Your task to perform on an android device: Turn off the flashlight Image 0: 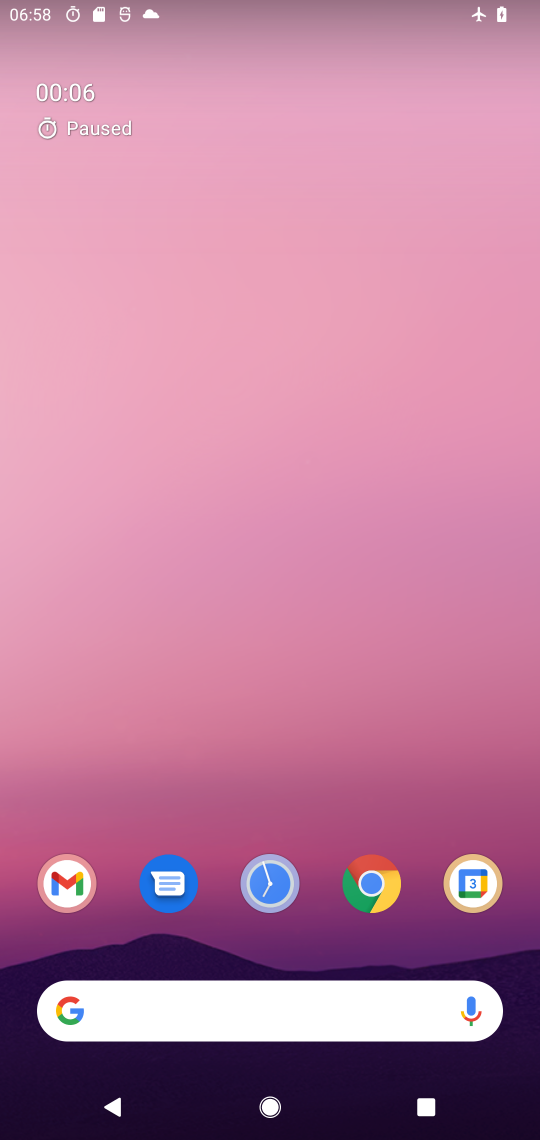
Step 0: drag from (352, 41) to (264, 848)
Your task to perform on an android device: Turn off the flashlight Image 1: 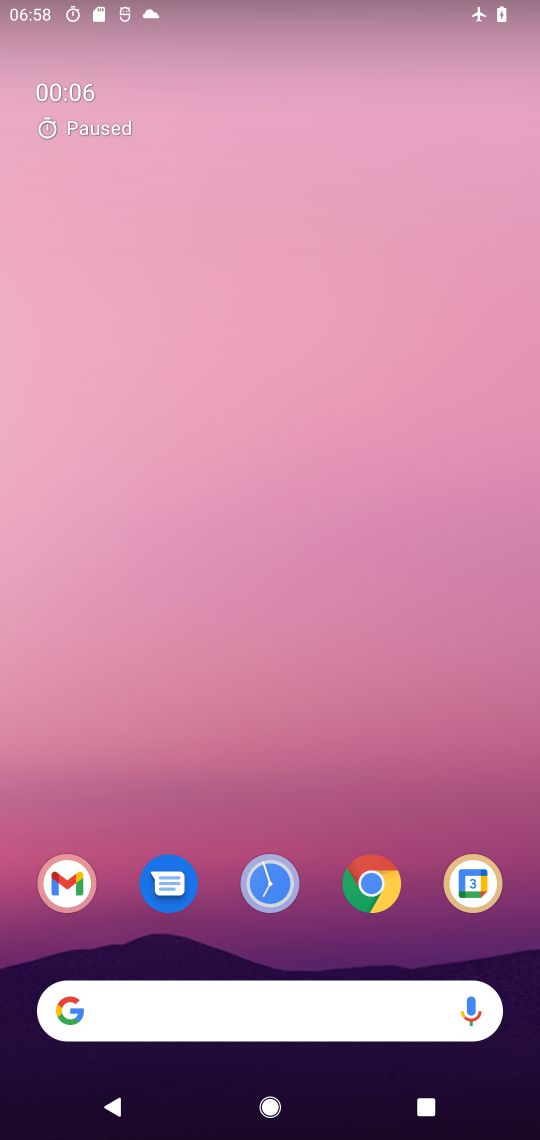
Step 1: drag from (325, 96) to (386, 868)
Your task to perform on an android device: Turn off the flashlight Image 2: 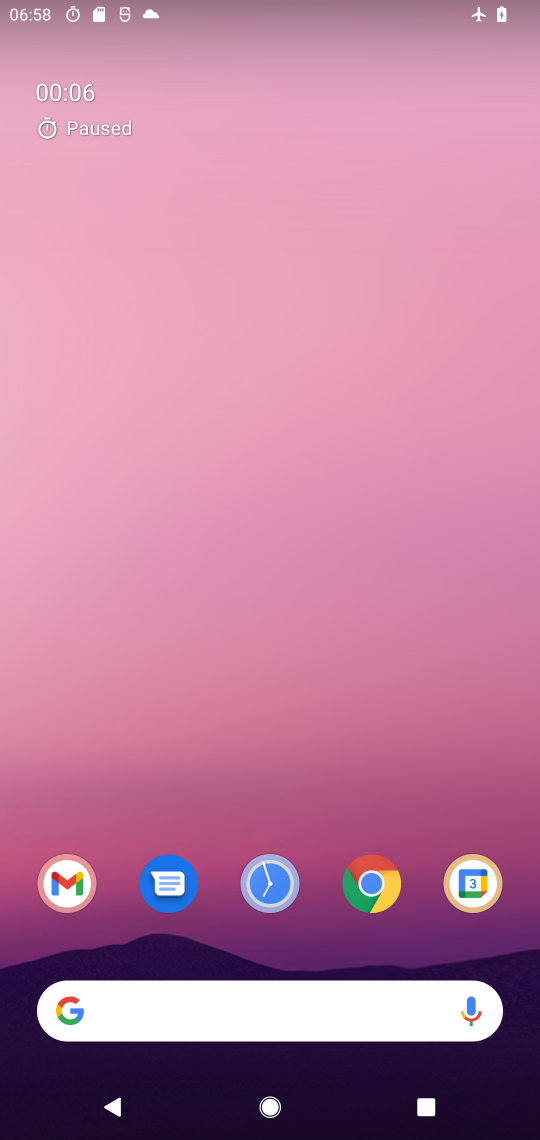
Step 2: drag from (301, 17) to (295, 1002)
Your task to perform on an android device: Turn off the flashlight Image 3: 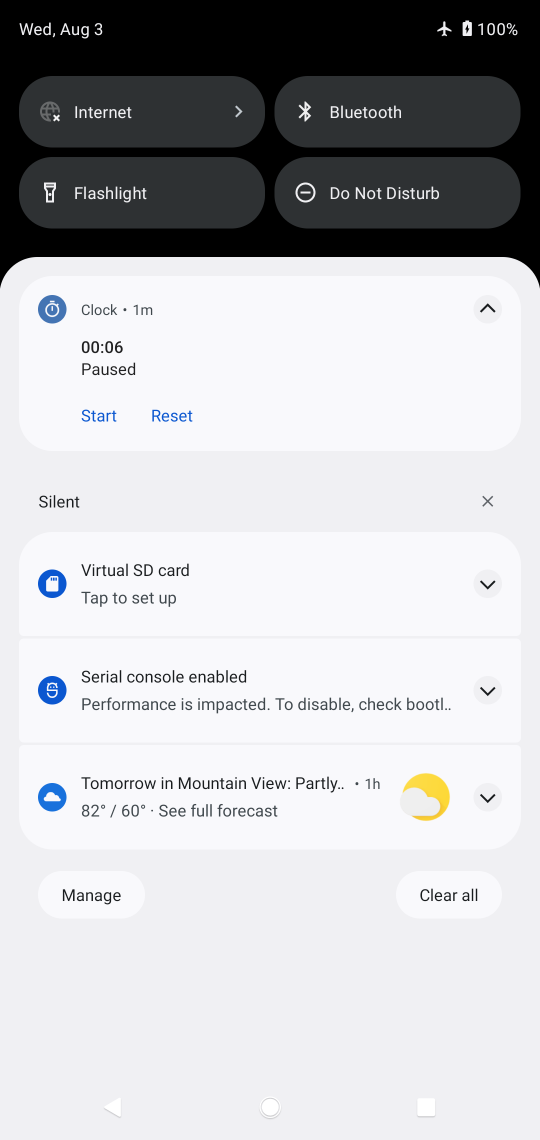
Step 3: drag from (263, 162) to (305, 797)
Your task to perform on an android device: Turn off the flashlight Image 4: 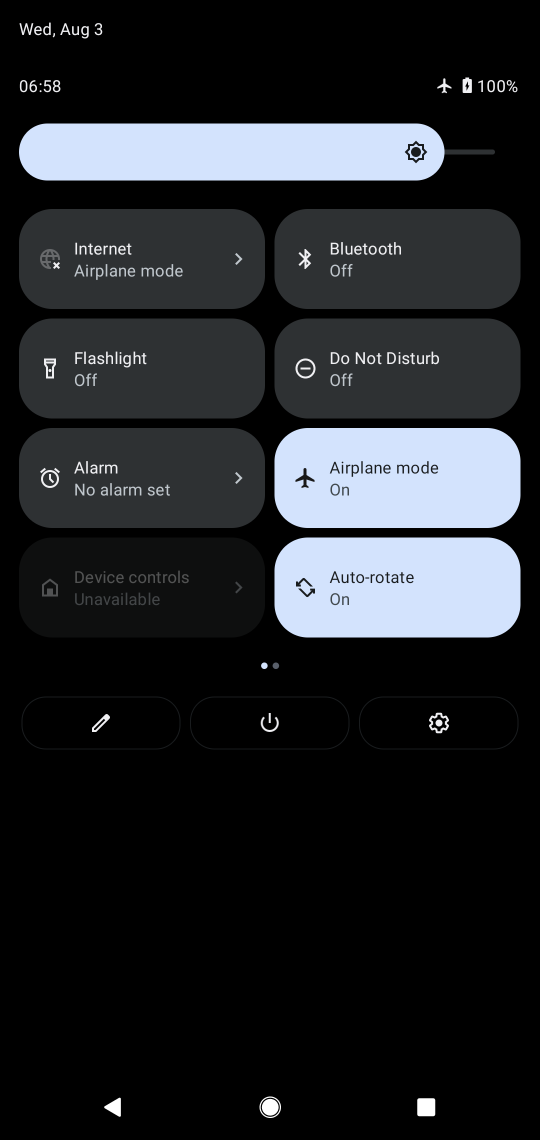
Step 4: click (128, 378)
Your task to perform on an android device: Turn off the flashlight Image 5: 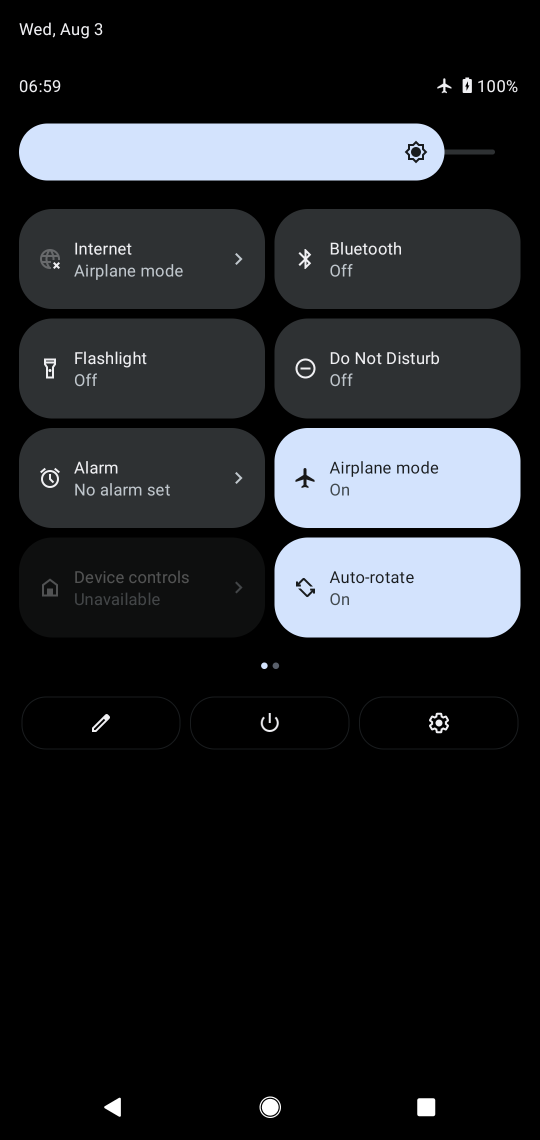
Step 5: task complete